Your task to perform on an android device: Check the weather Image 0: 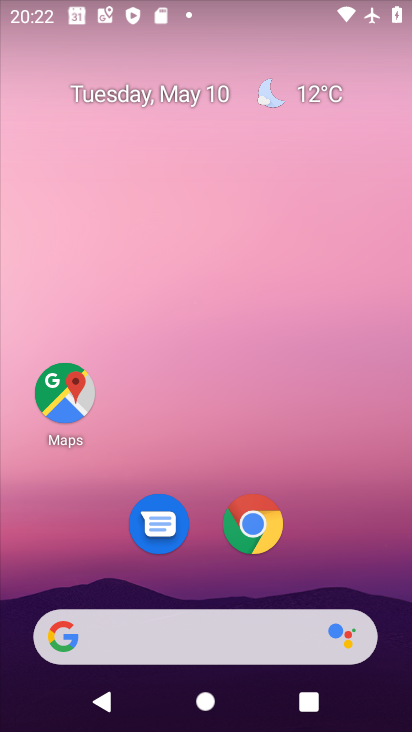
Step 0: click (317, 88)
Your task to perform on an android device: Check the weather Image 1: 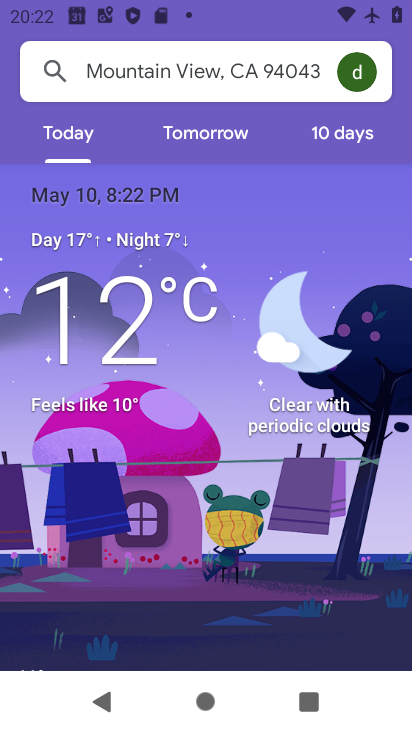
Step 1: task complete